Your task to perform on an android device: turn on improve location accuracy Image 0: 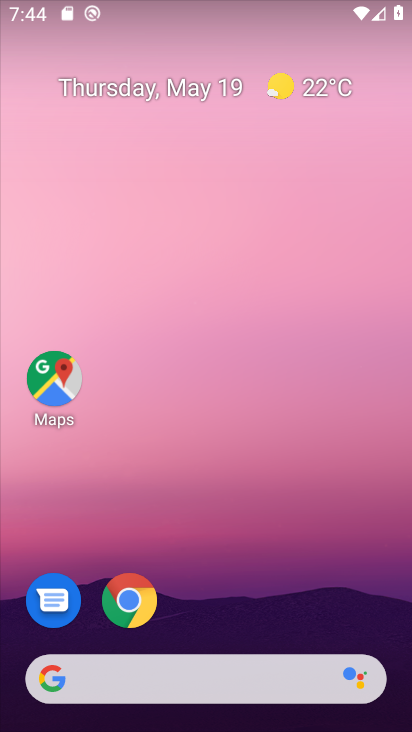
Step 0: drag from (261, 597) to (239, 84)
Your task to perform on an android device: turn on improve location accuracy Image 1: 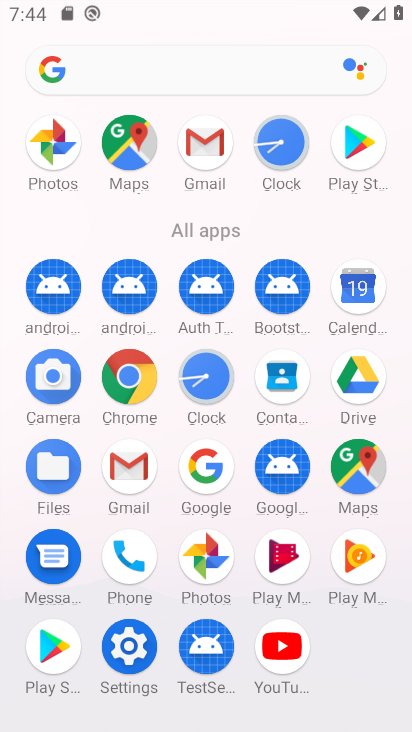
Step 1: click (126, 650)
Your task to perform on an android device: turn on improve location accuracy Image 2: 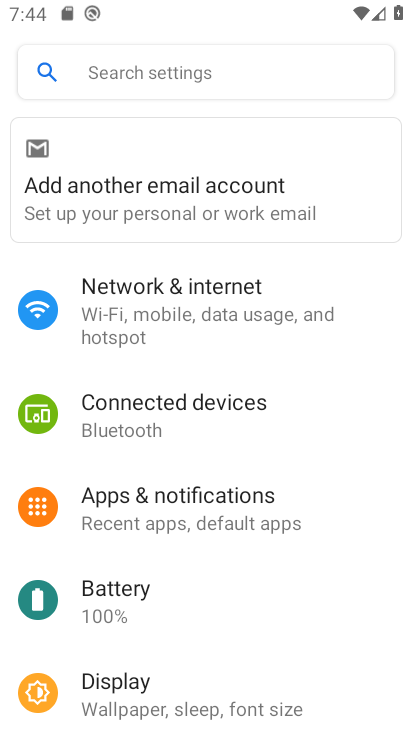
Step 2: drag from (237, 602) to (241, 89)
Your task to perform on an android device: turn on improve location accuracy Image 3: 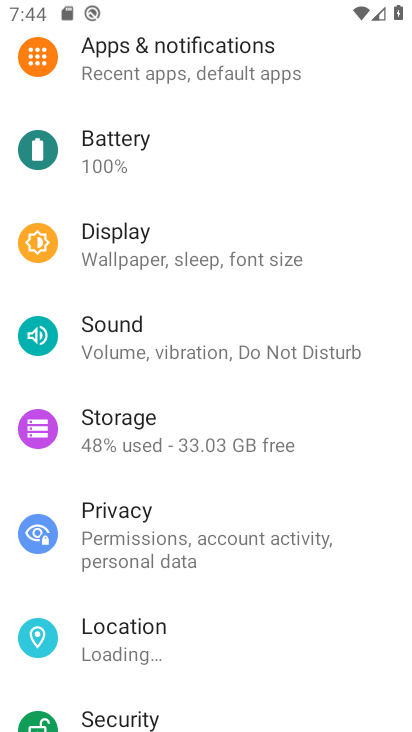
Step 3: click (119, 657)
Your task to perform on an android device: turn on improve location accuracy Image 4: 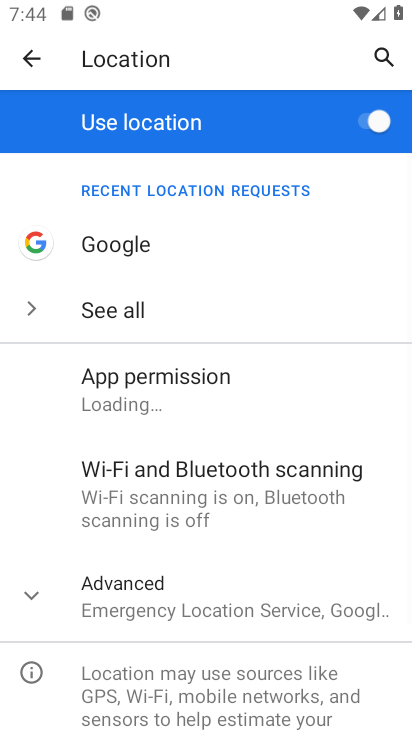
Step 4: click (162, 632)
Your task to perform on an android device: turn on improve location accuracy Image 5: 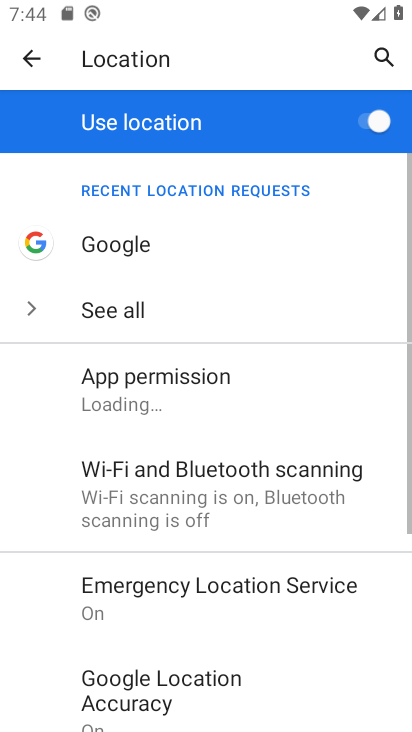
Step 5: drag from (280, 552) to (248, 238)
Your task to perform on an android device: turn on improve location accuracy Image 6: 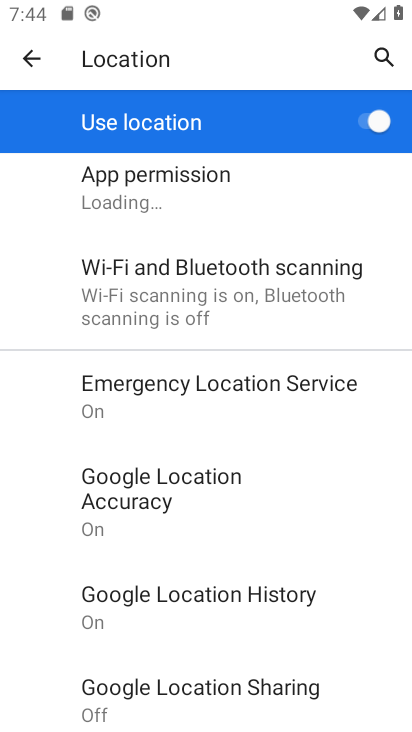
Step 6: click (143, 501)
Your task to perform on an android device: turn on improve location accuracy Image 7: 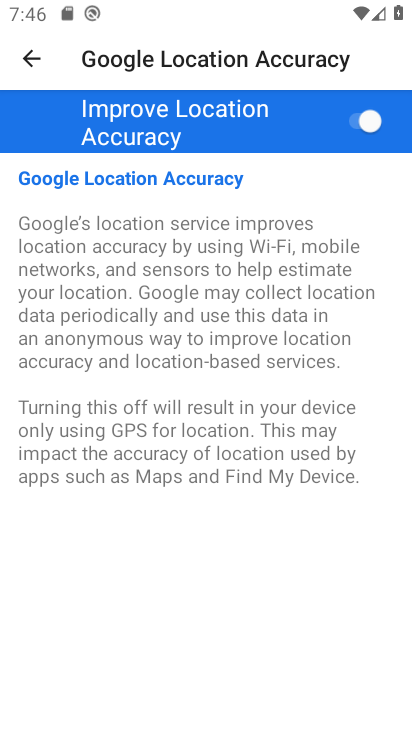
Step 7: task complete